Your task to perform on an android device: Search for sushi restaurants on Maps Image 0: 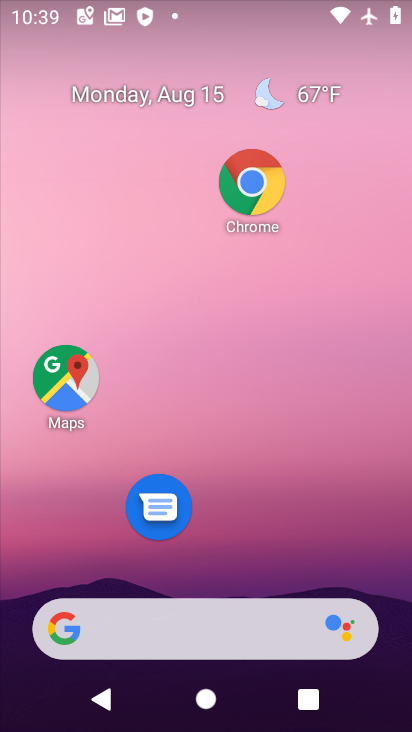
Step 0: click (268, 645)
Your task to perform on an android device: Search for sushi restaurants on Maps Image 1: 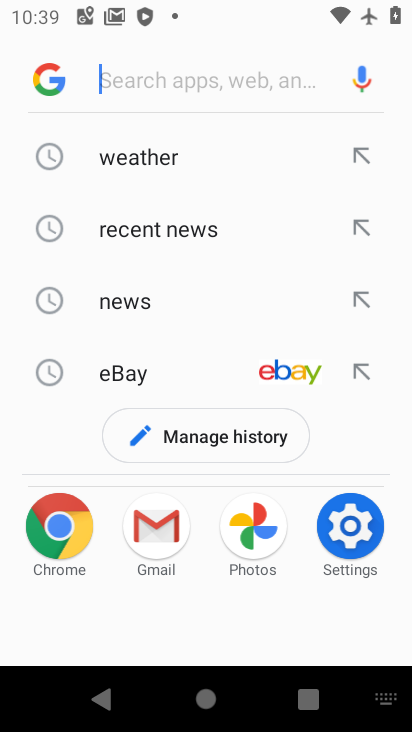
Step 1: press home button
Your task to perform on an android device: Search for sushi restaurants on Maps Image 2: 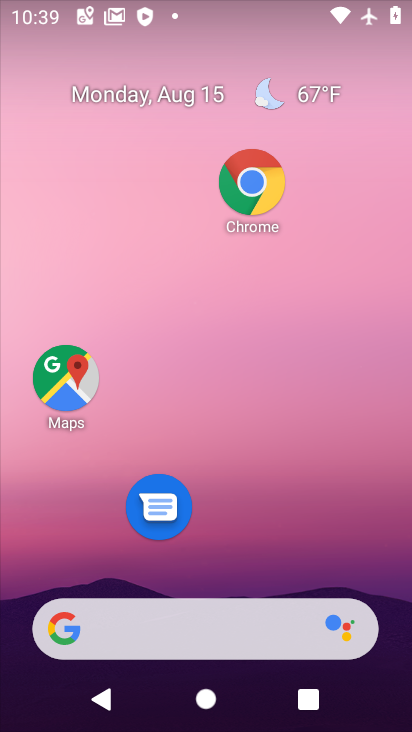
Step 2: click (67, 398)
Your task to perform on an android device: Search for sushi restaurants on Maps Image 3: 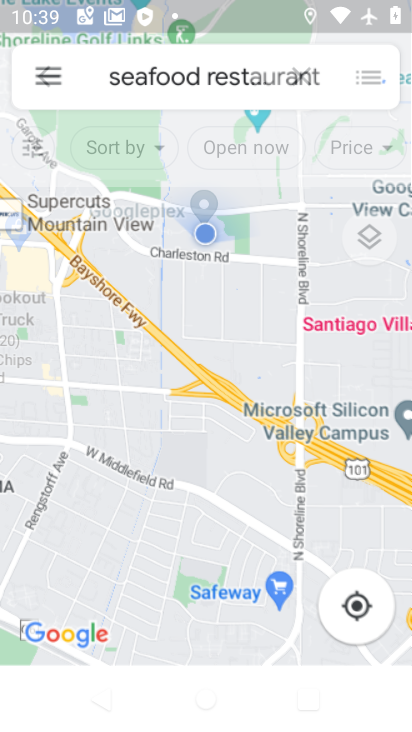
Step 3: click (266, 95)
Your task to perform on an android device: Search for sushi restaurants on Maps Image 4: 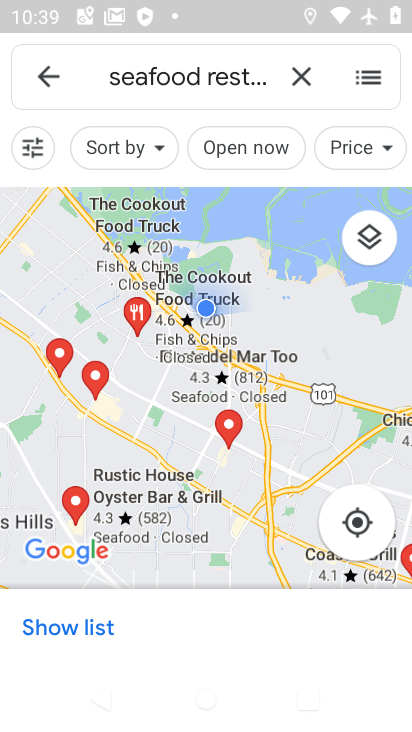
Step 4: click (299, 81)
Your task to perform on an android device: Search for sushi restaurants on Maps Image 5: 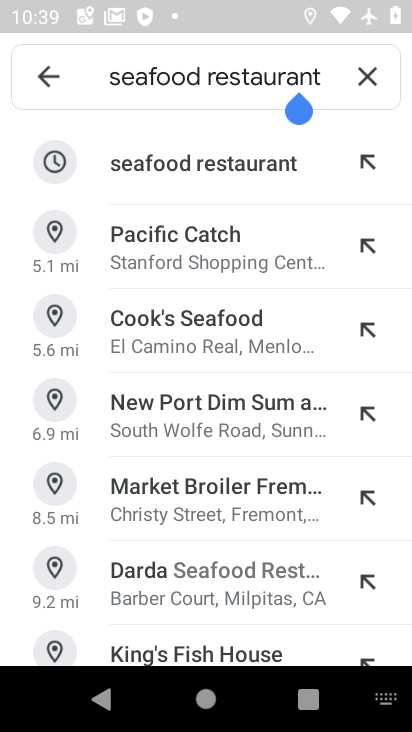
Step 5: click (365, 81)
Your task to perform on an android device: Search for sushi restaurants on Maps Image 6: 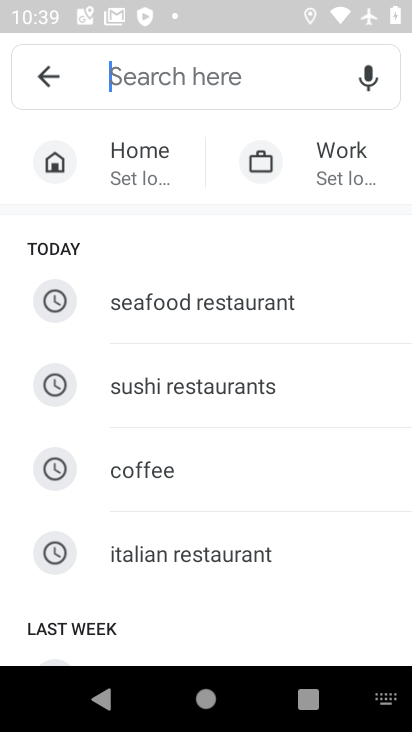
Step 6: type "sushi"
Your task to perform on an android device: Search for sushi restaurants on Maps Image 7: 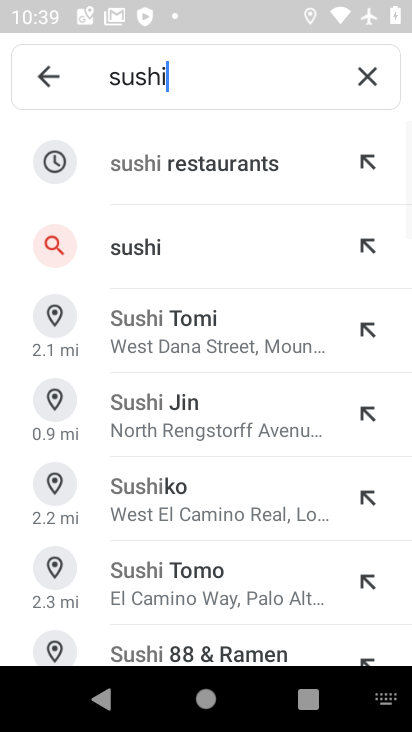
Step 7: click (251, 186)
Your task to perform on an android device: Search for sushi restaurants on Maps Image 8: 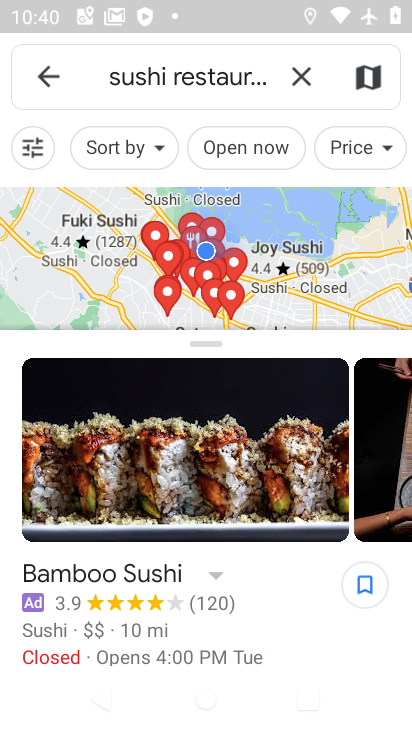
Step 8: task complete